Your task to perform on an android device: Open battery settings Image 0: 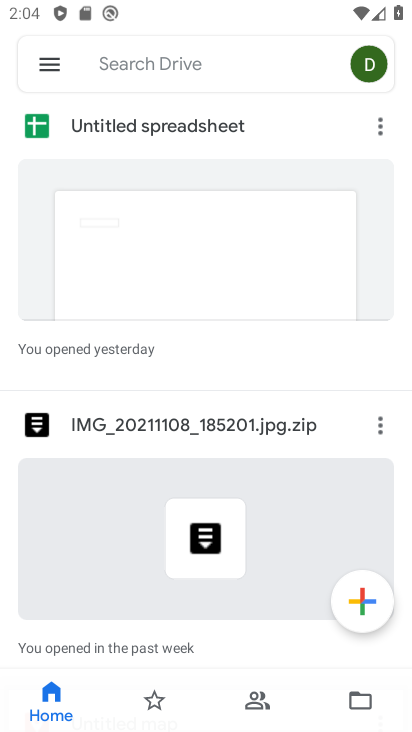
Step 0: press home button
Your task to perform on an android device: Open battery settings Image 1: 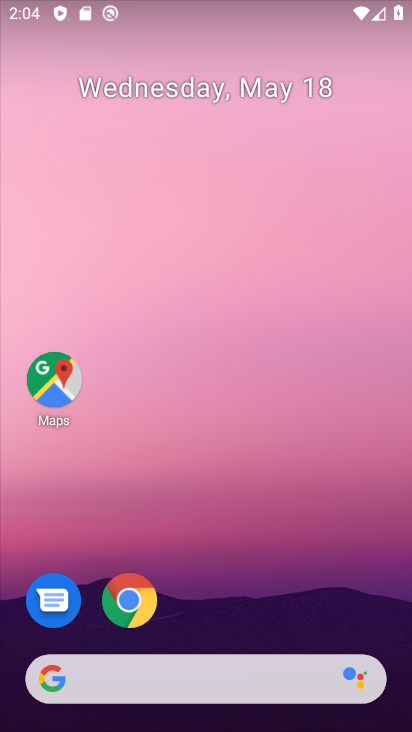
Step 1: drag from (155, 684) to (300, 142)
Your task to perform on an android device: Open battery settings Image 2: 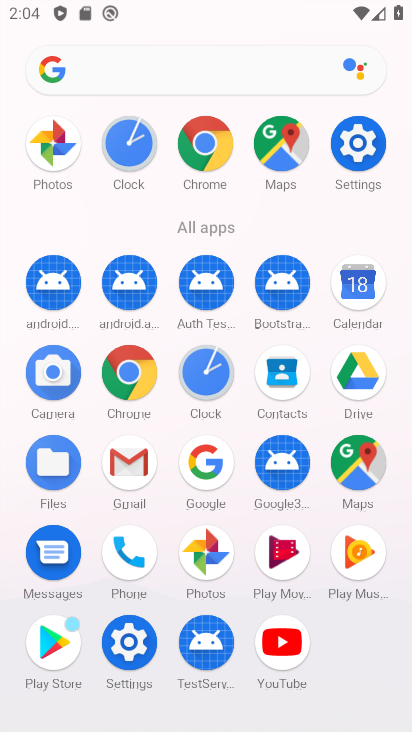
Step 2: click (363, 155)
Your task to perform on an android device: Open battery settings Image 3: 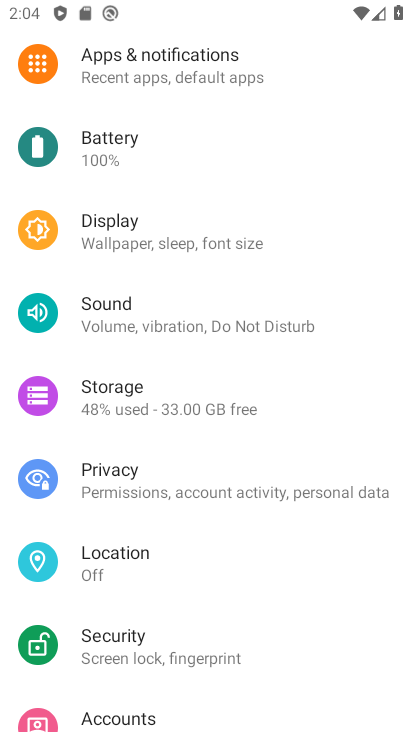
Step 3: click (108, 146)
Your task to perform on an android device: Open battery settings Image 4: 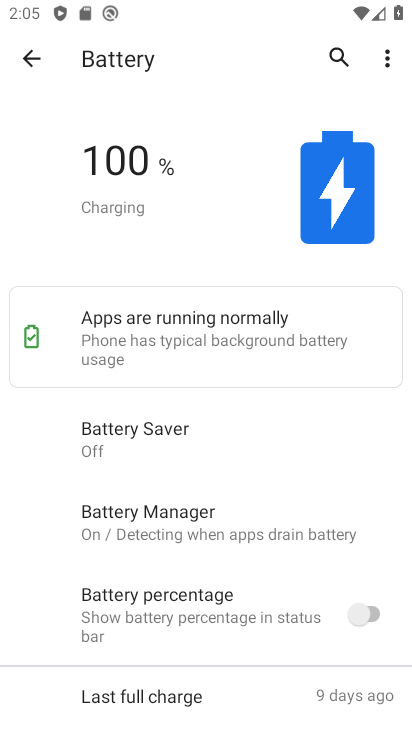
Step 4: task complete